Your task to perform on an android device: open app "ZOOM Cloud Meetings" Image 0: 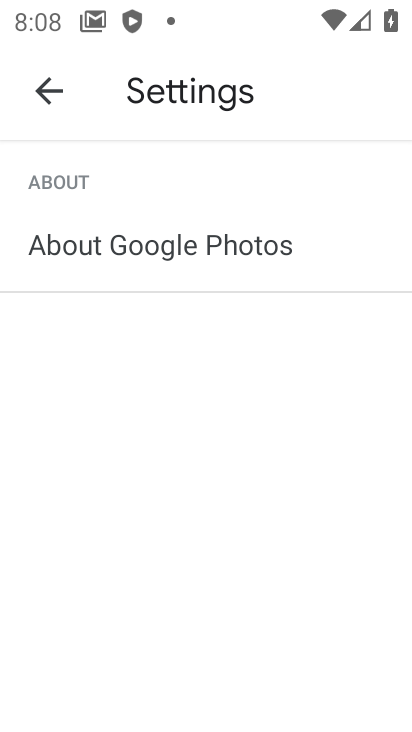
Step 0: press home button
Your task to perform on an android device: open app "ZOOM Cloud Meetings" Image 1: 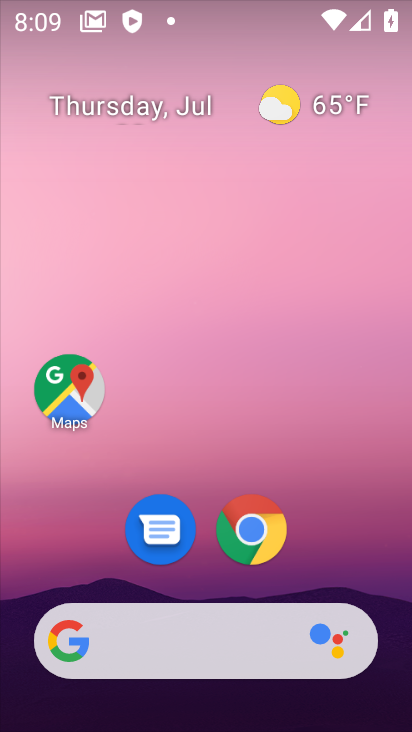
Step 1: drag from (319, 579) to (329, 2)
Your task to perform on an android device: open app "ZOOM Cloud Meetings" Image 2: 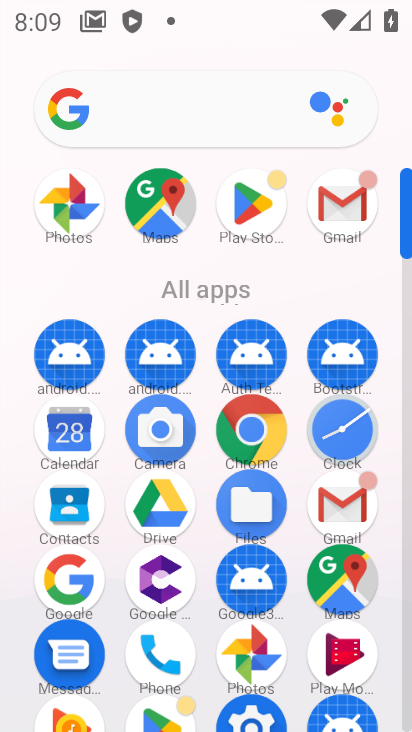
Step 2: click (246, 206)
Your task to perform on an android device: open app "ZOOM Cloud Meetings" Image 3: 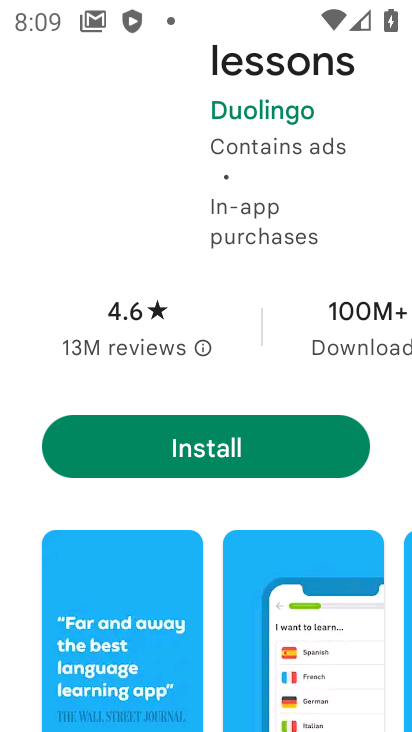
Step 3: drag from (157, 146) to (160, 332)
Your task to perform on an android device: open app "ZOOM Cloud Meetings" Image 4: 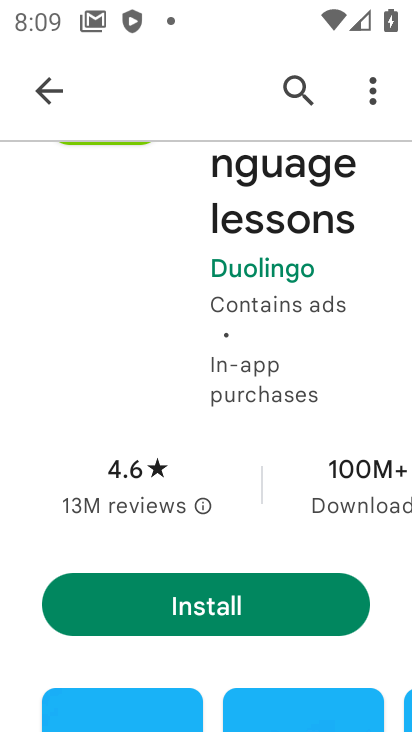
Step 4: click (296, 86)
Your task to perform on an android device: open app "ZOOM Cloud Meetings" Image 5: 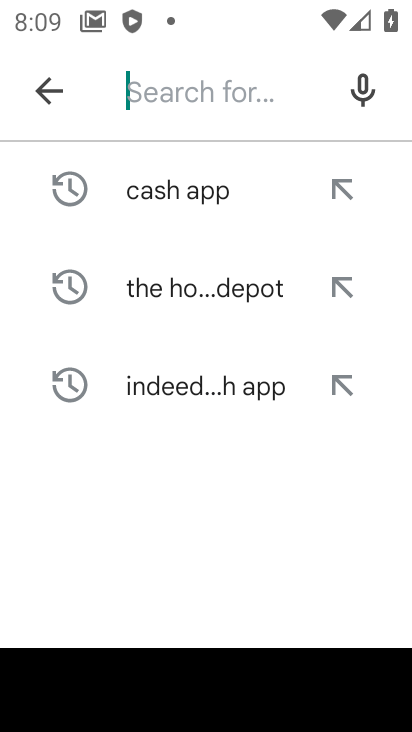
Step 5: type "ZOOM Cloud Meetings"
Your task to perform on an android device: open app "ZOOM Cloud Meetings" Image 6: 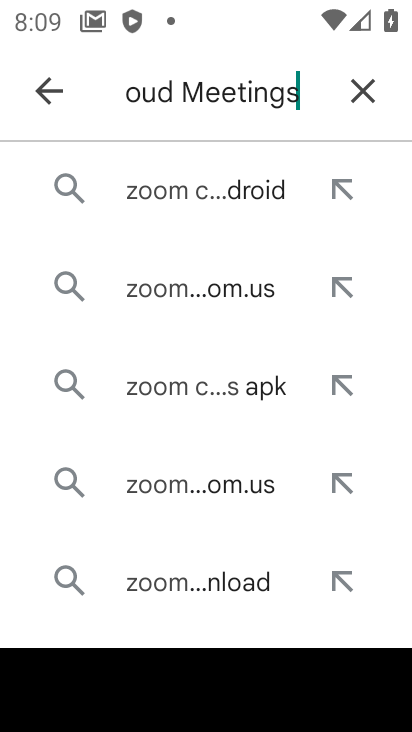
Step 6: click (164, 195)
Your task to perform on an android device: open app "ZOOM Cloud Meetings" Image 7: 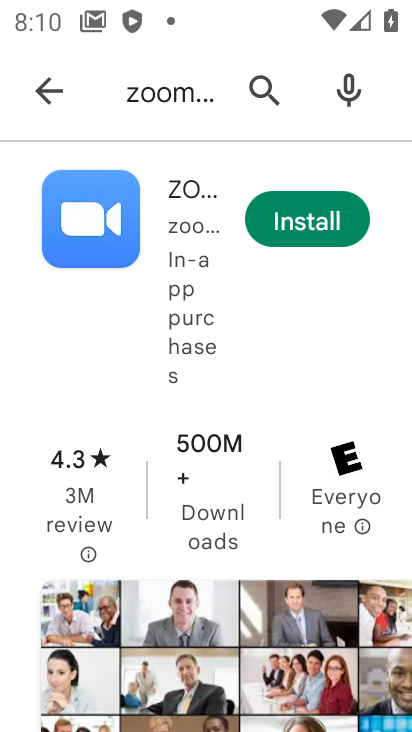
Step 7: task complete